Your task to perform on an android device: Go to privacy settings Image 0: 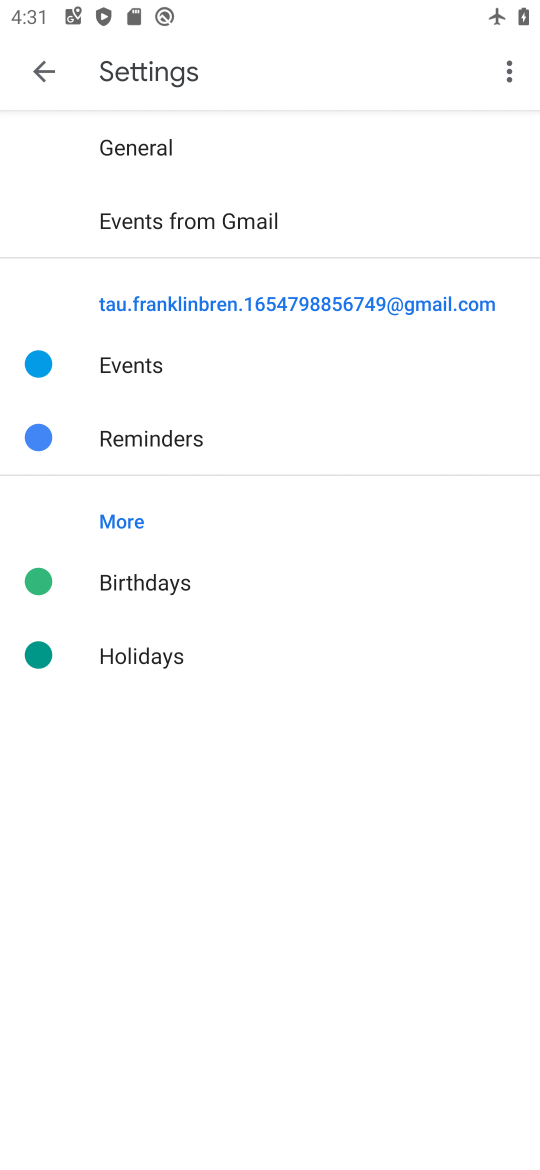
Step 0: press home button
Your task to perform on an android device: Go to privacy settings Image 1: 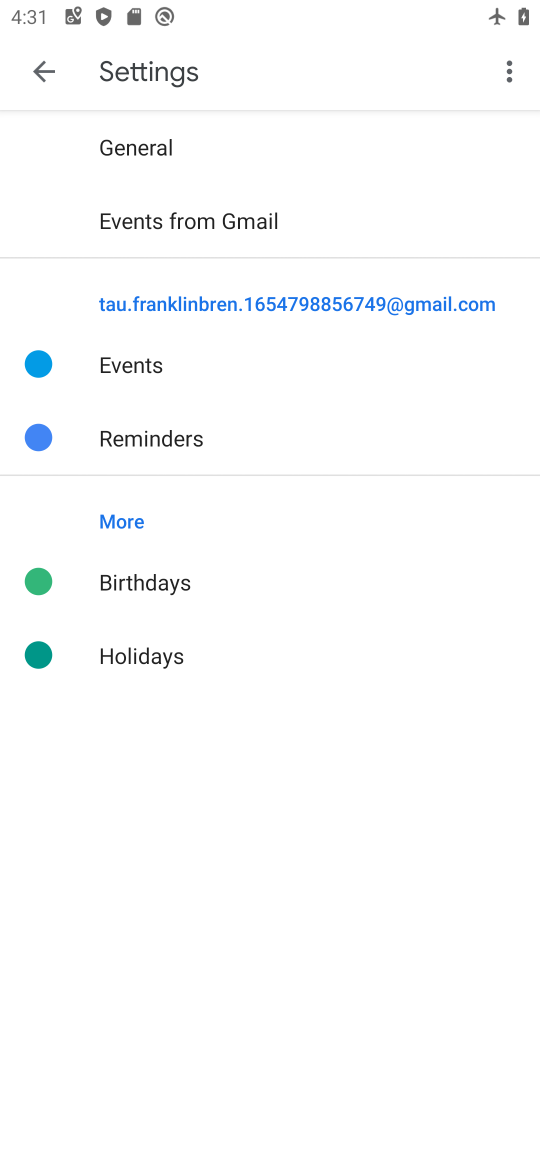
Step 1: press home button
Your task to perform on an android device: Go to privacy settings Image 2: 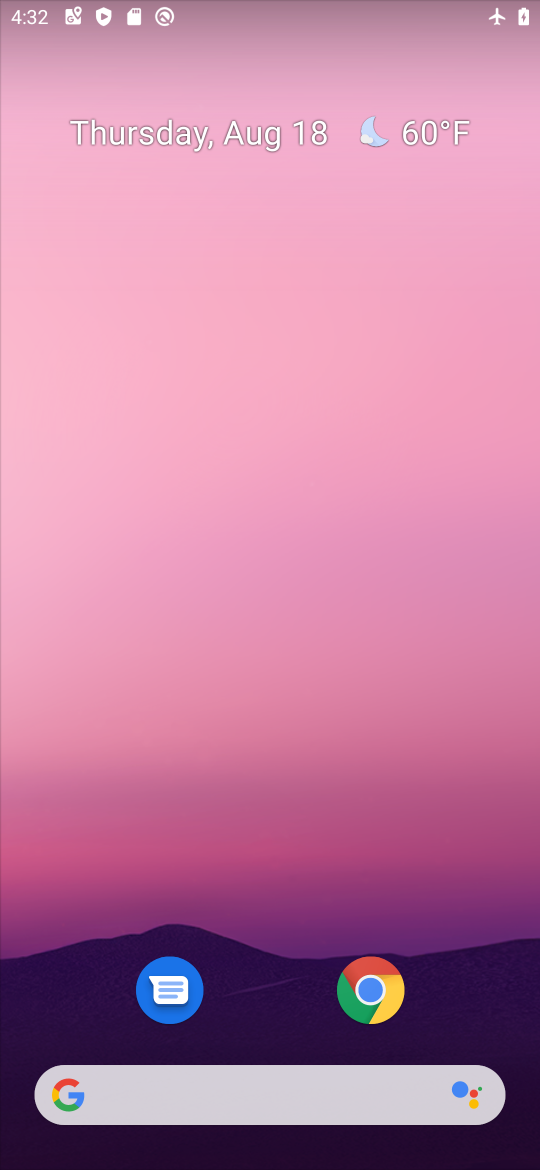
Step 2: drag from (242, 936) to (303, 189)
Your task to perform on an android device: Go to privacy settings Image 3: 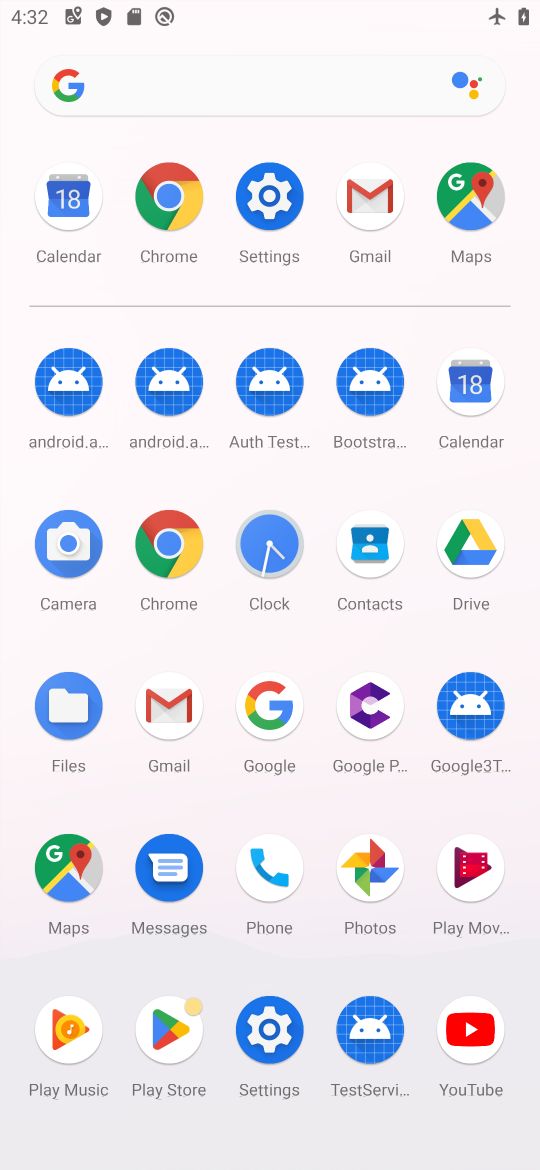
Step 3: click (264, 1021)
Your task to perform on an android device: Go to privacy settings Image 4: 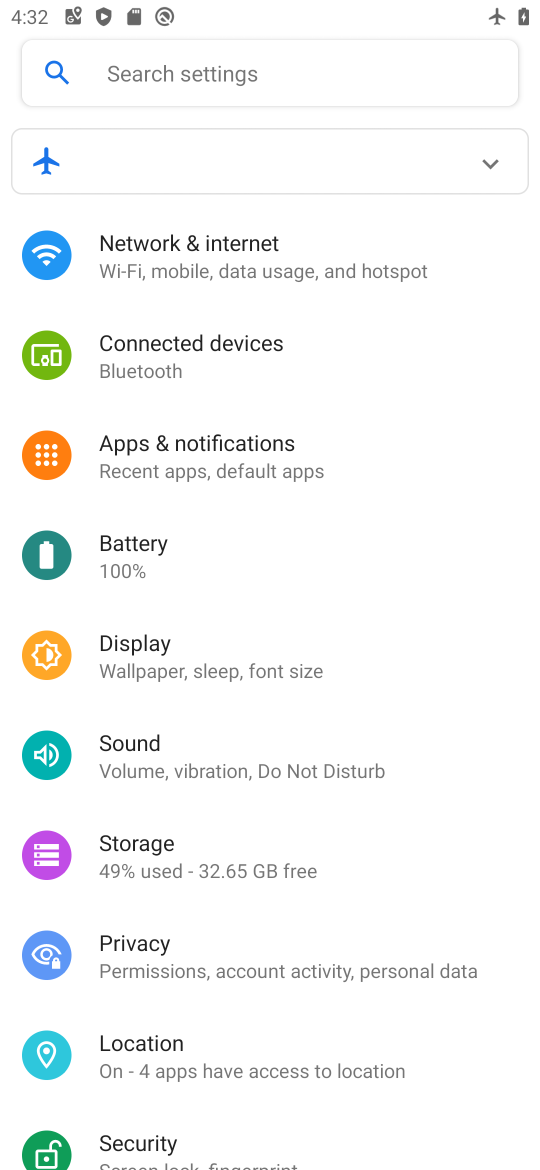
Step 4: drag from (315, 826) to (392, 360)
Your task to perform on an android device: Go to privacy settings Image 5: 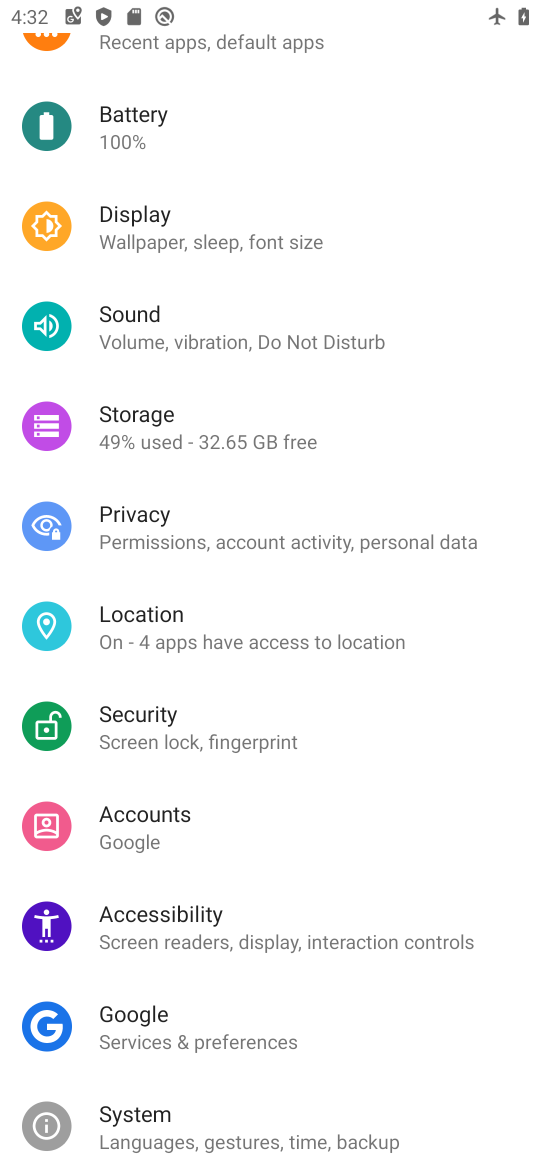
Step 5: drag from (279, 1021) to (327, 617)
Your task to perform on an android device: Go to privacy settings Image 6: 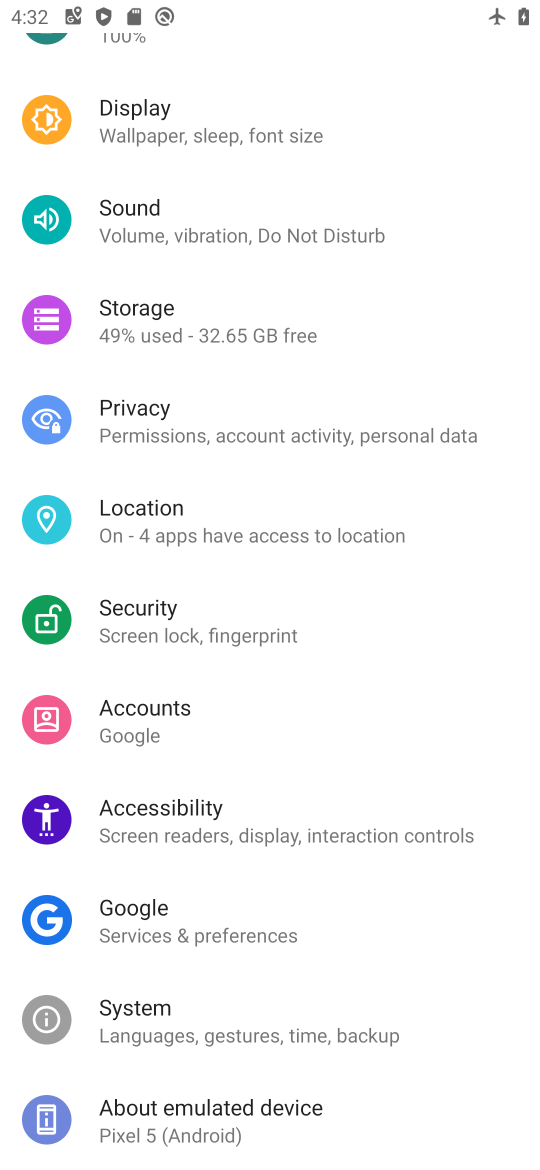
Step 6: click (247, 425)
Your task to perform on an android device: Go to privacy settings Image 7: 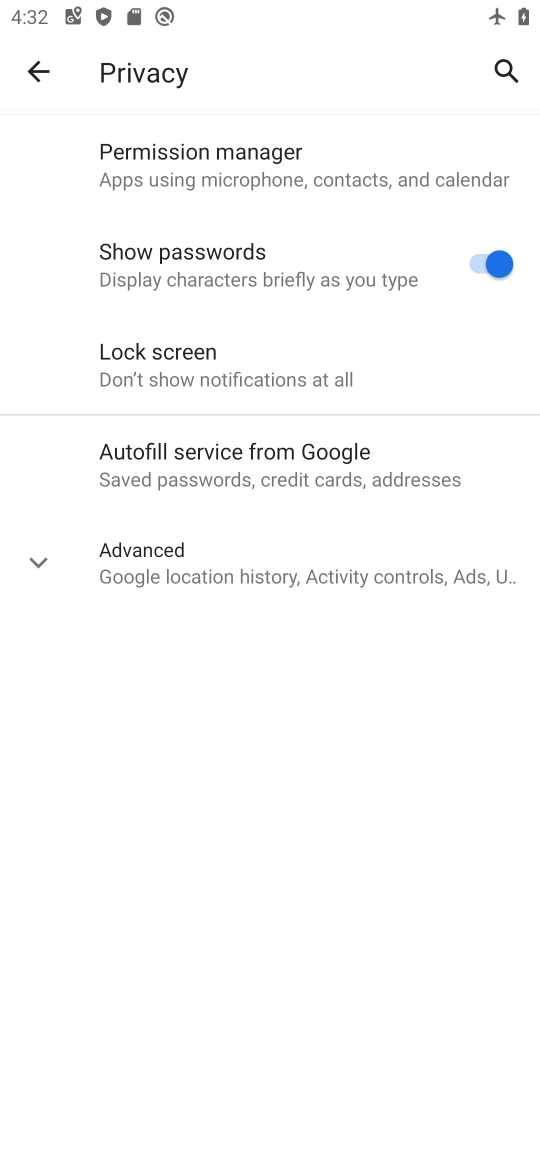
Step 7: task complete